Your task to perform on an android device: change text size in settings app Image 0: 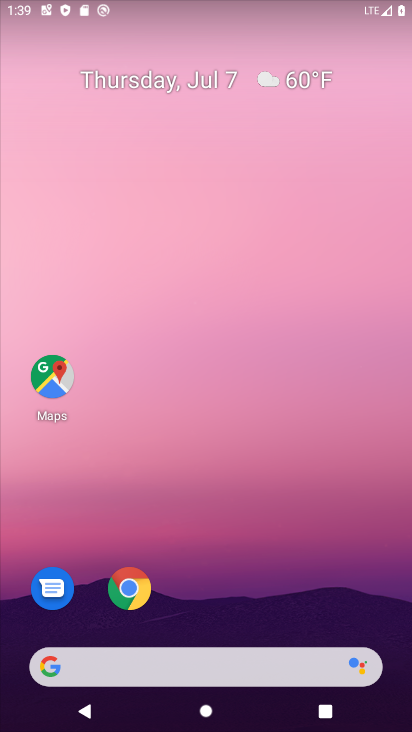
Step 0: drag from (240, 602) to (238, 361)
Your task to perform on an android device: change text size in settings app Image 1: 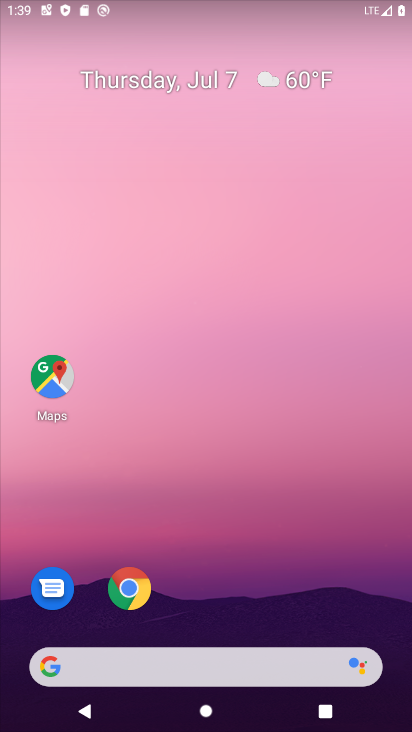
Step 1: drag from (237, 595) to (228, 242)
Your task to perform on an android device: change text size in settings app Image 2: 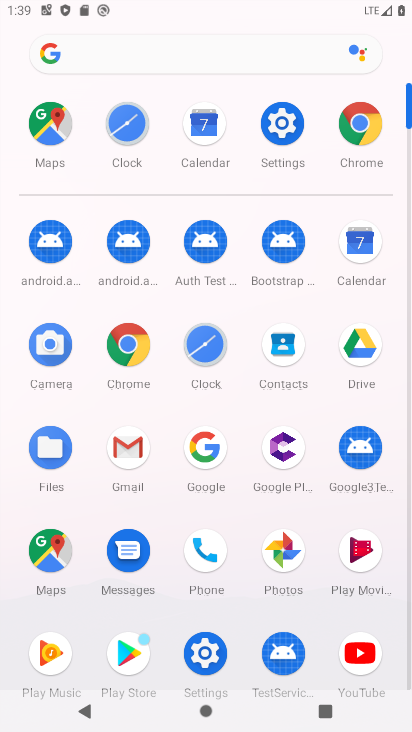
Step 2: click (282, 115)
Your task to perform on an android device: change text size in settings app Image 3: 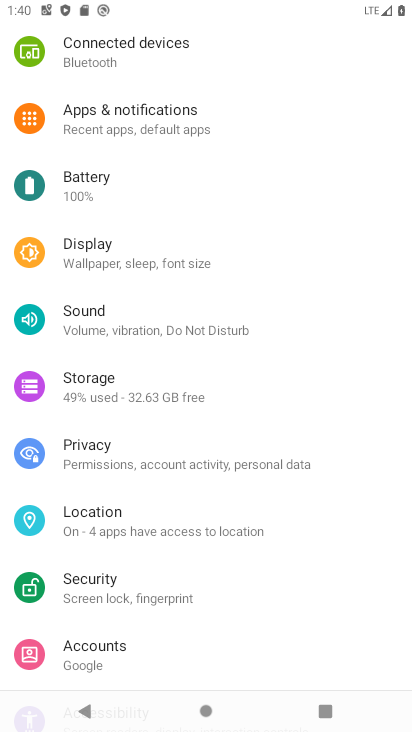
Step 3: drag from (147, 515) to (160, 169)
Your task to perform on an android device: change text size in settings app Image 4: 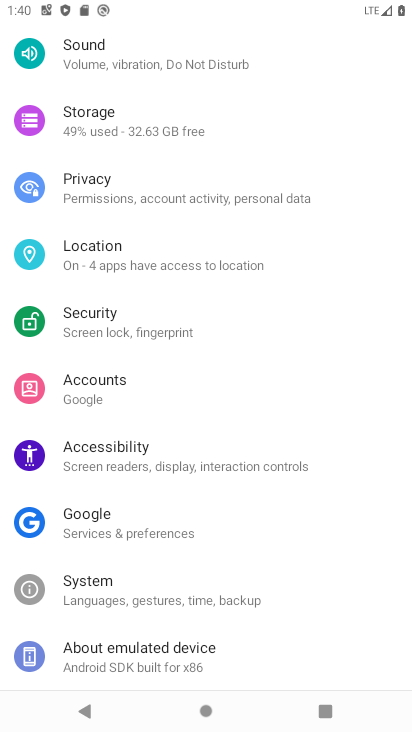
Step 4: click (168, 603)
Your task to perform on an android device: change text size in settings app Image 5: 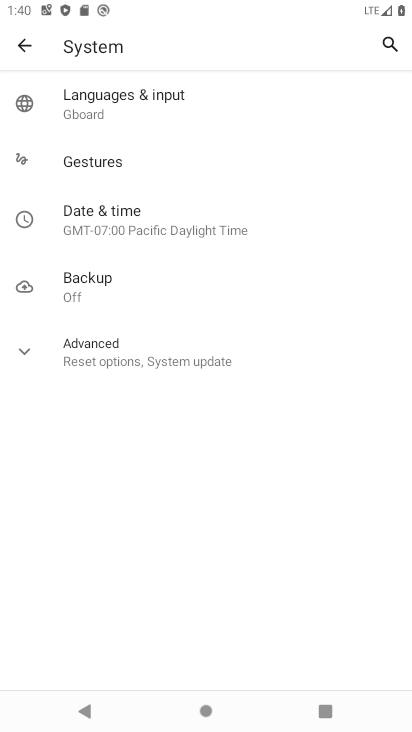
Step 5: click (29, 43)
Your task to perform on an android device: change text size in settings app Image 6: 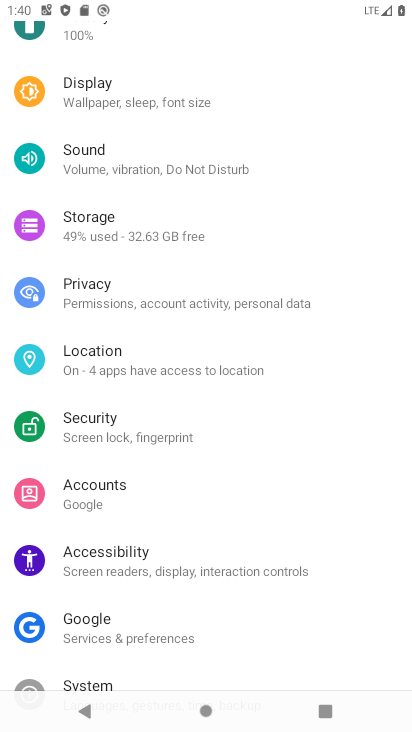
Step 6: drag from (155, 659) to (152, 507)
Your task to perform on an android device: change text size in settings app Image 7: 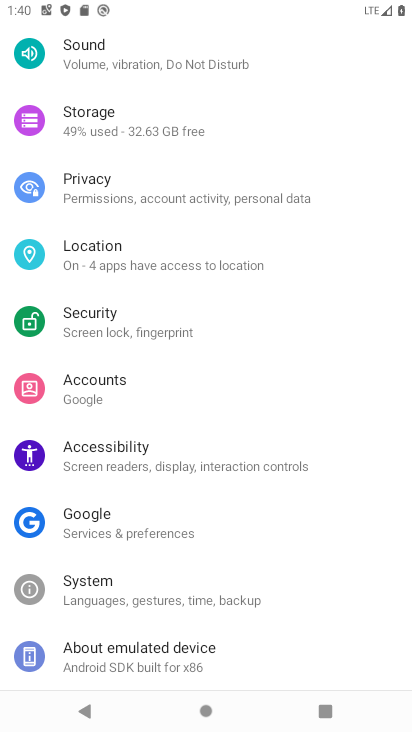
Step 7: click (147, 612)
Your task to perform on an android device: change text size in settings app Image 8: 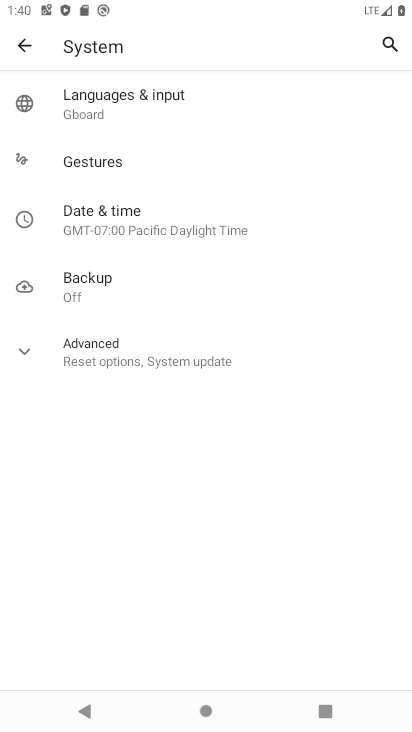
Step 8: click (118, 80)
Your task to perform on an android device: change text size in settings app Image 9: 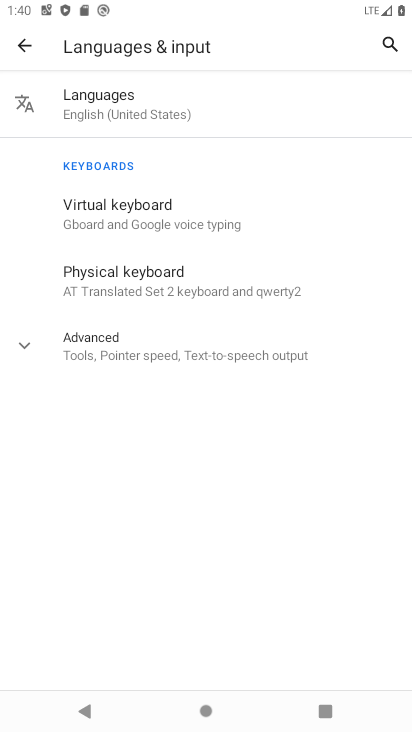
Step 9: click (49, 41)
Your task to perform on an android device: change text size in settings app Image 10: 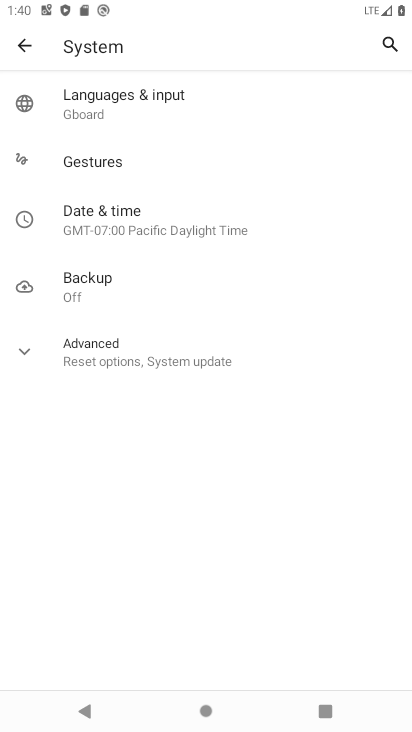
Step 10: click (38, 46)
Your task to perform on an android device: change text size in settings app Image 11: 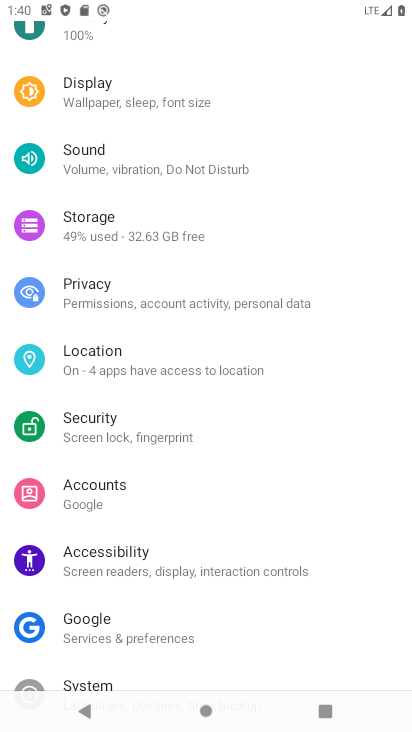
Step 11: drag from (132, 617) to (154, 402)
Your task to perform on an android device: change text size in settings app Image 12: 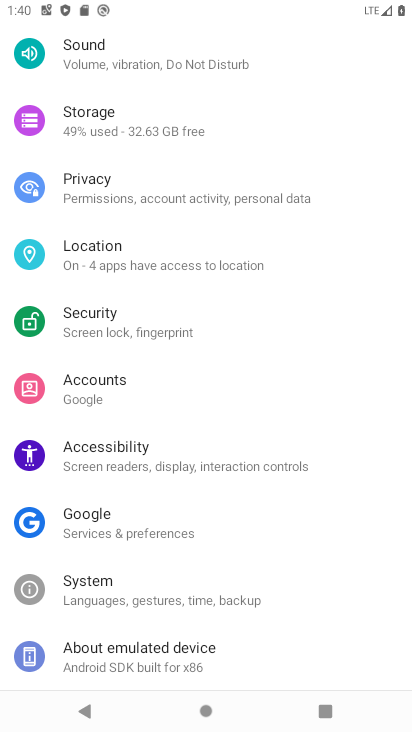
Step 12: drag from (139, 584) to (167, 375)
Your task to perform on an android device: change text size in settings app Image 13: 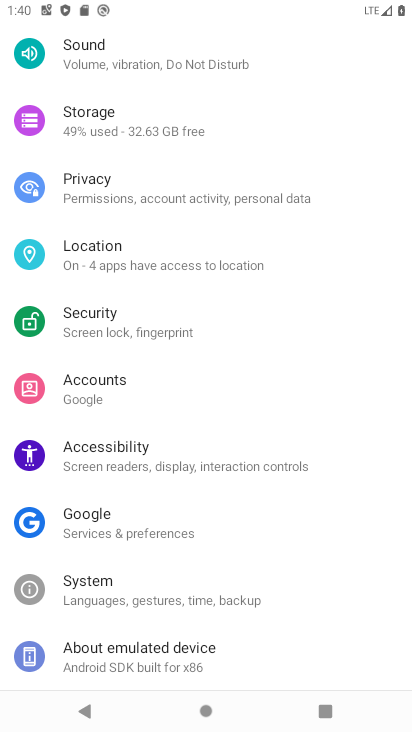
Step 13: click (139, 470)
Your task to perform on an android device: change text size in settings app Image 14: 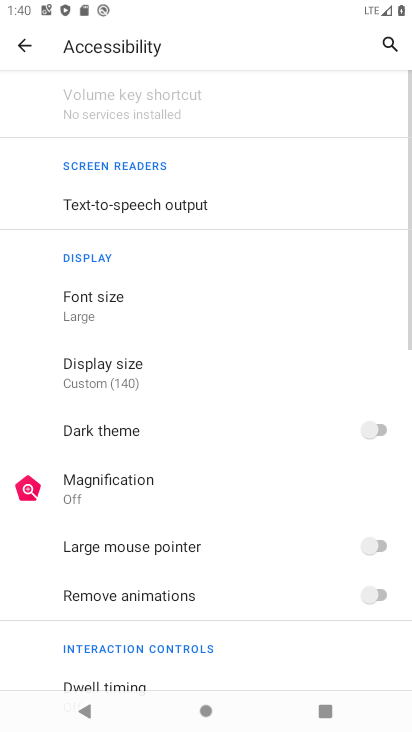
Step 14: click (126, 284)
Your task to perform on an android device: change text size in settings app Image 15: 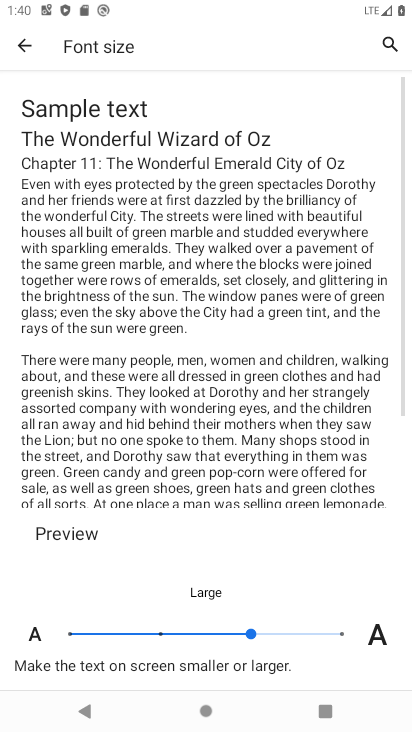
Step 15: click (192, 630)
Your task to perform on an android device: change text size in settings app Image 16: 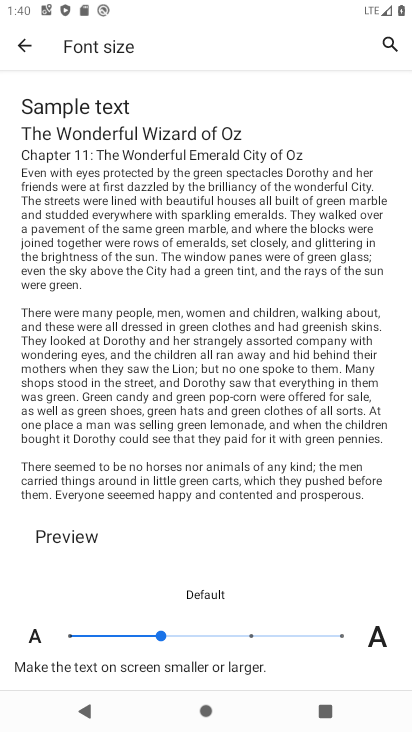
Step 16: task complete